Your task to perform on an android device: visit the assistant section in the google photos Image 0: 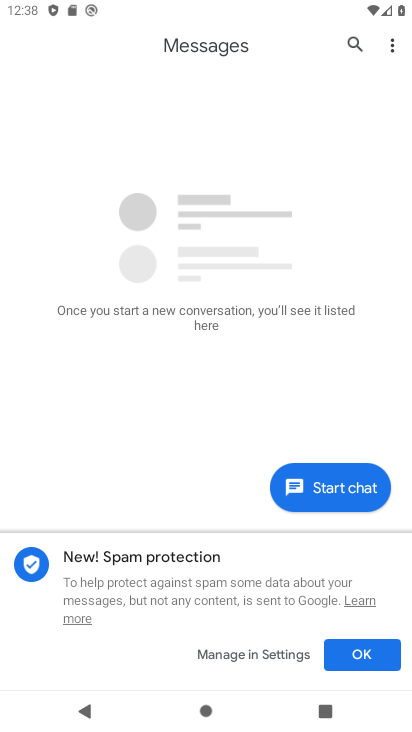
Step 0: press home button
Your task to perform on an android device: visit the assistant section in the google photos Image 1: 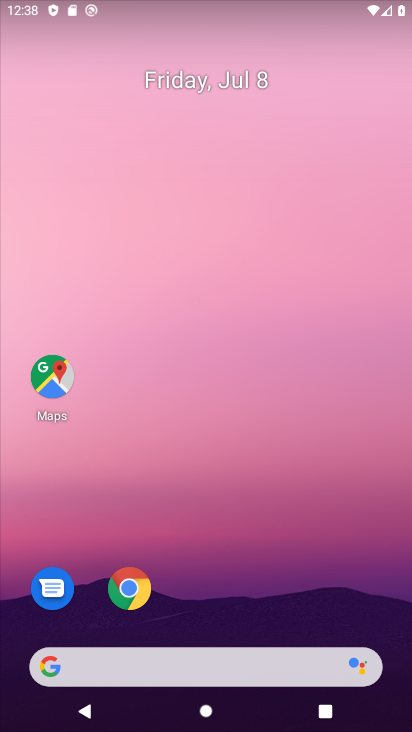
Step 1: drag from (246, 635) to (250, 20)
Your task to perform on an android device: visit the assistant section in the google photos Image 2: 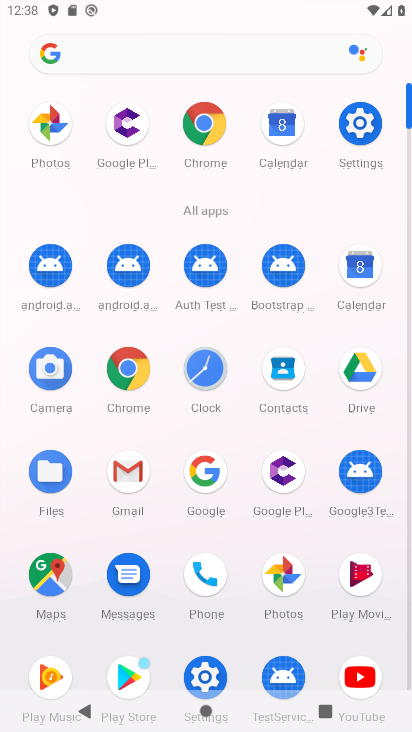
Step 2: click (294, 574)
Your task to perform on an android device: visit the assistant section in the google photos Image 3: 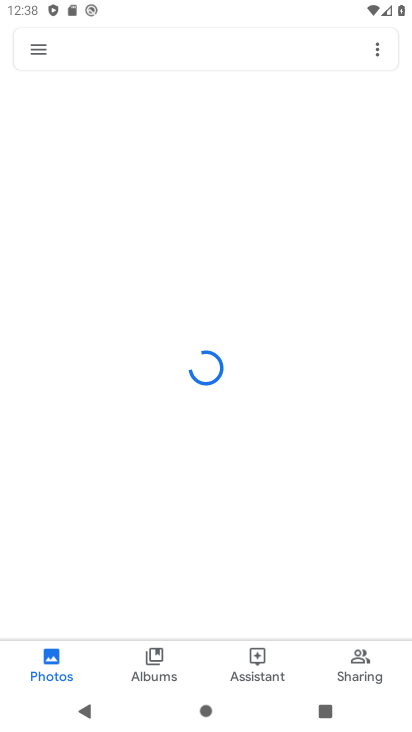
Step 3: click (259, 664)
Your task to perform on an android device: visit the assistant section in the google photos Image 4: 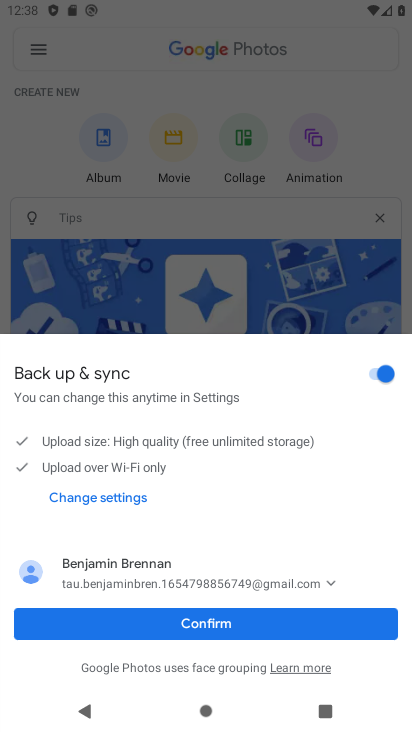
Step 4: click (230, 618)
Your task to perform on an android device: visit the assistant section in the google photos Image 5: 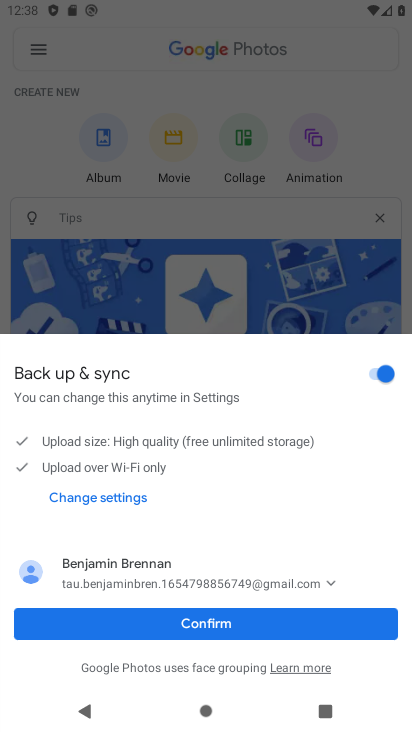
Step 5: click (226, 620)
Your task to perform on an android device: visit the assistant section in the google photos Image 6: 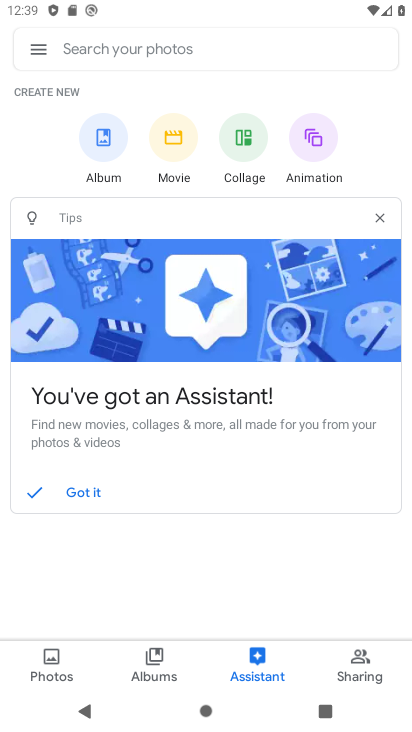
Step 6: task complete